Your task to perform on an android device: Open calendar and show me the third week of next month Image 0: 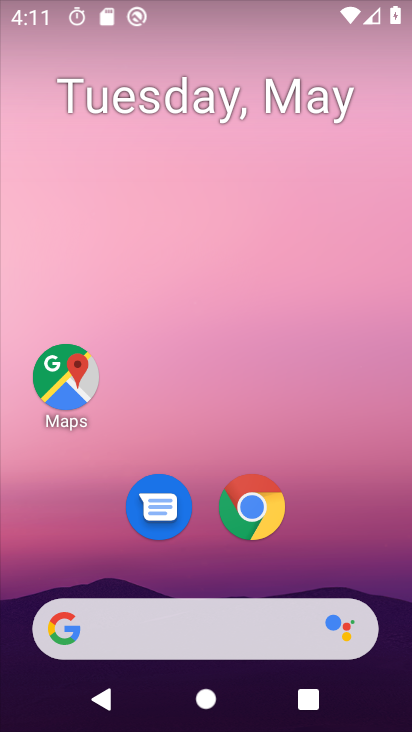
Step 0: drag from (184, 576) to (342, 16)
Your task to perform on an android device: Open calendar and show me the third week of next month Image 1: 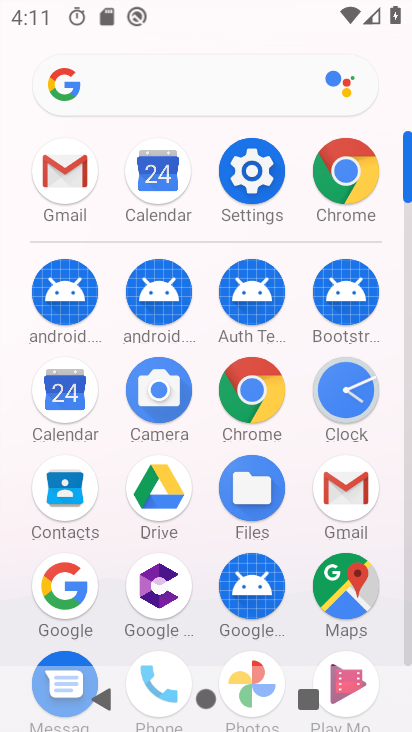
Step 1: click (49, 392)
Your task to perform on an android device: Open calendar and show me the third week of next month Image 2: 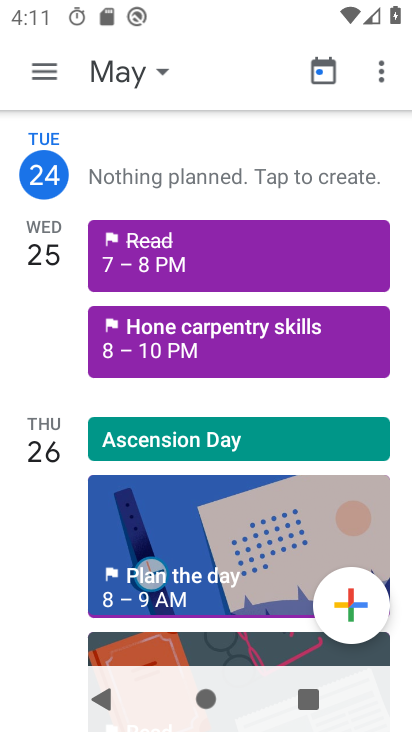
Step 2: click (156, 70)
Your task to perform on an android device: Open calendar and show me the third week of next month Image 3: 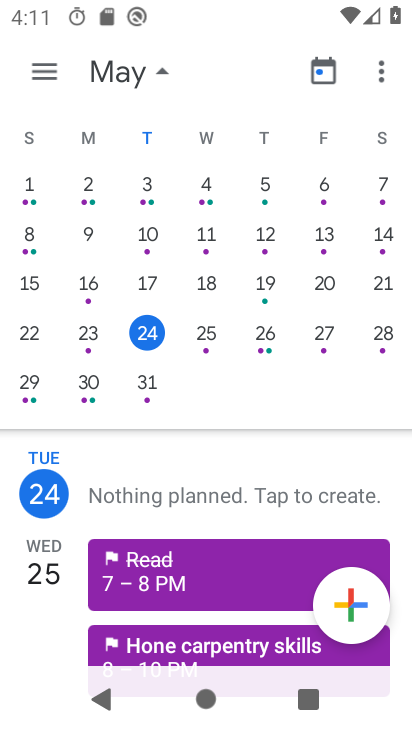
Step 3: drag from (385, 318) to (14, 328)
Your task to perform on an android device: Open calendar and show me the third week of next month Image 4: 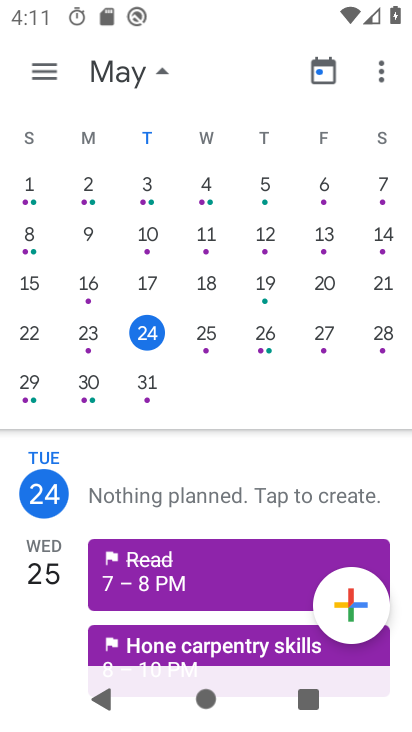
Step 4: drag from (387, 307) to (6, 313)
Your task to perform on an android device: Open calendar and show me the third week of next month Image 5: 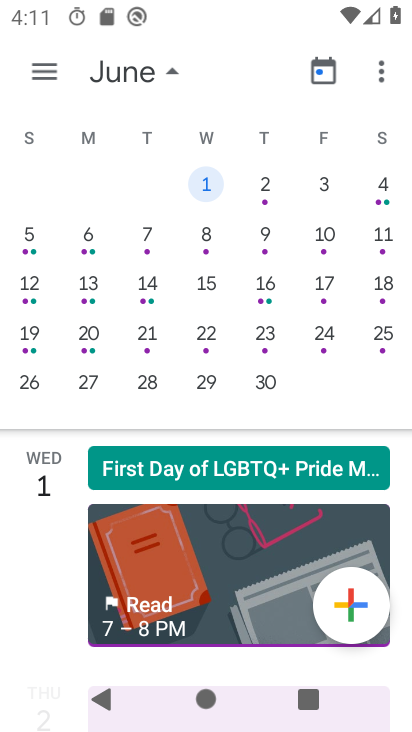
Step 5: click (38, 295)
Your task to perform on an android device: Open calendar and show me the third week of next month Image 6: 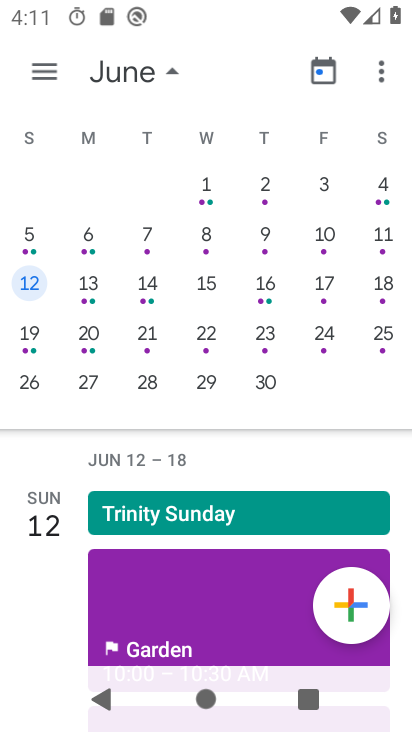
Step 6: task complete